Your task to perform on an android device: open app "LinkedIn" (install if not already installed) Image 0: 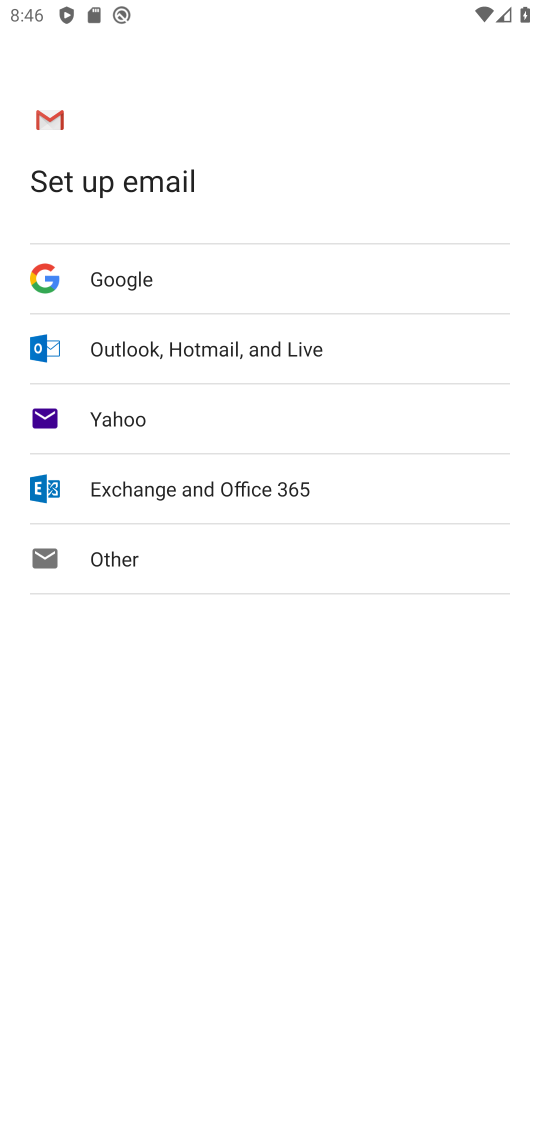
Step 0: press home button
Your task to perform on an android device: open app "LinkedIn" (install if not already installed) Image 1: 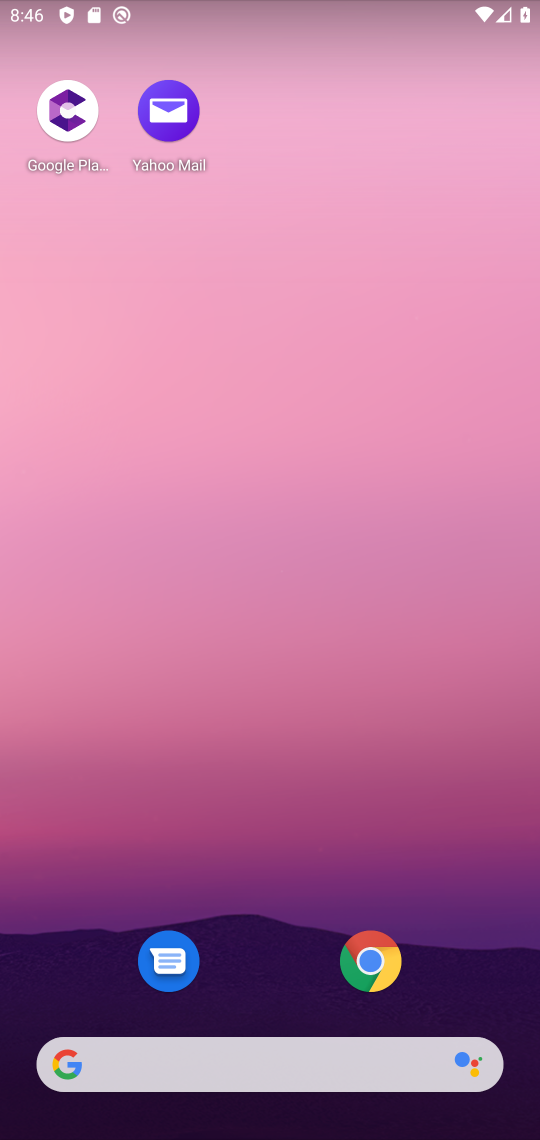
Step 1: drag from (329, 466) to (538, 160)
Your task to perform on an android device: open app "LinkedIn" (install if not already installed) Image 2: 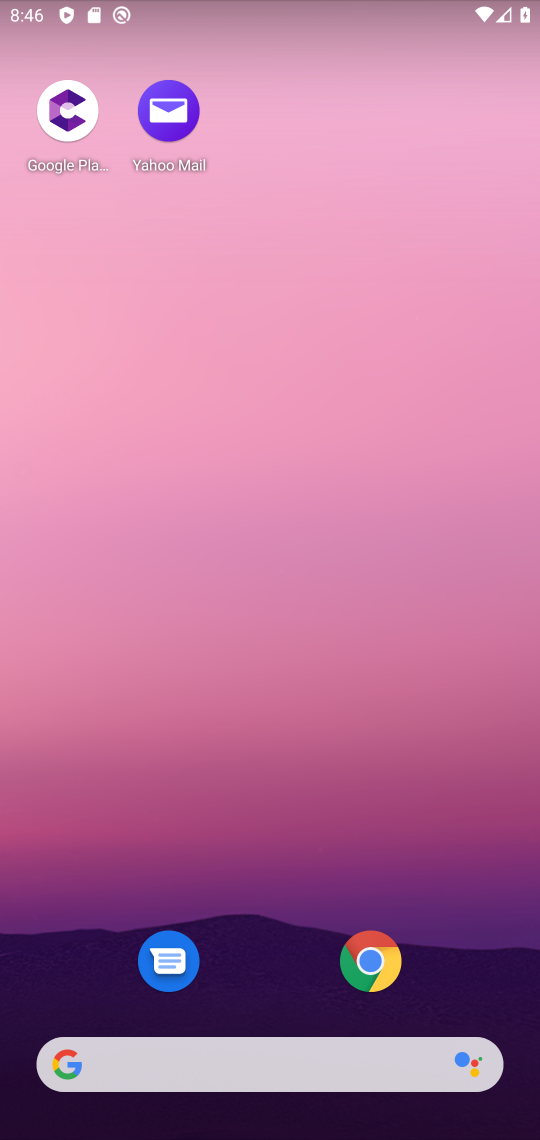
Step 2: drag from (294, 972) to (327, 0)
Your task to perform on an android device: open app "LinkedIn" (install if not already installed) Image 3: 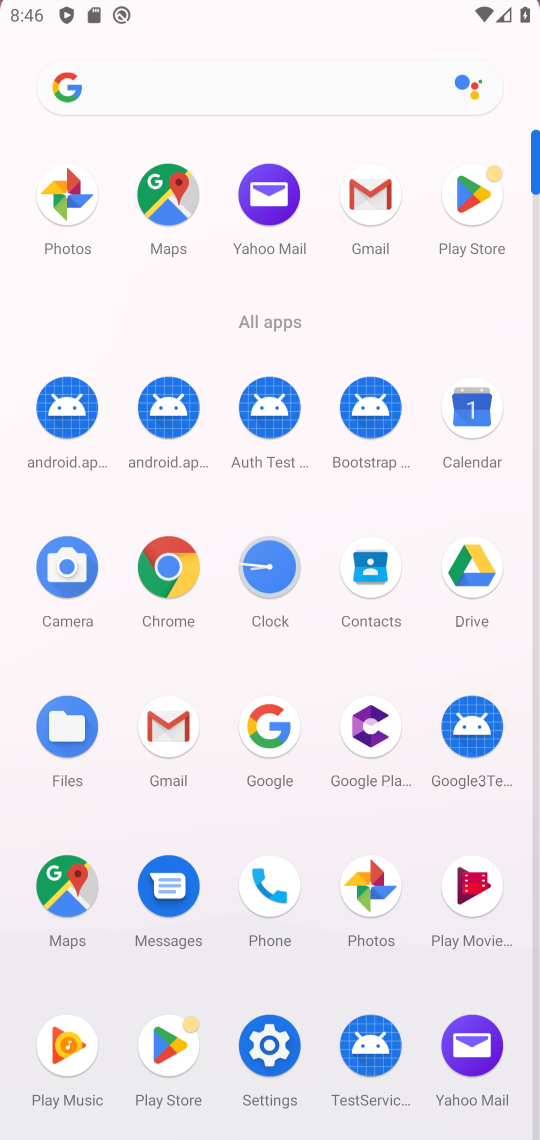
Step 3: click (485, 236)
Your task to perform on an android device: open app "LinkedIn" (install if not already installed) Image 4: 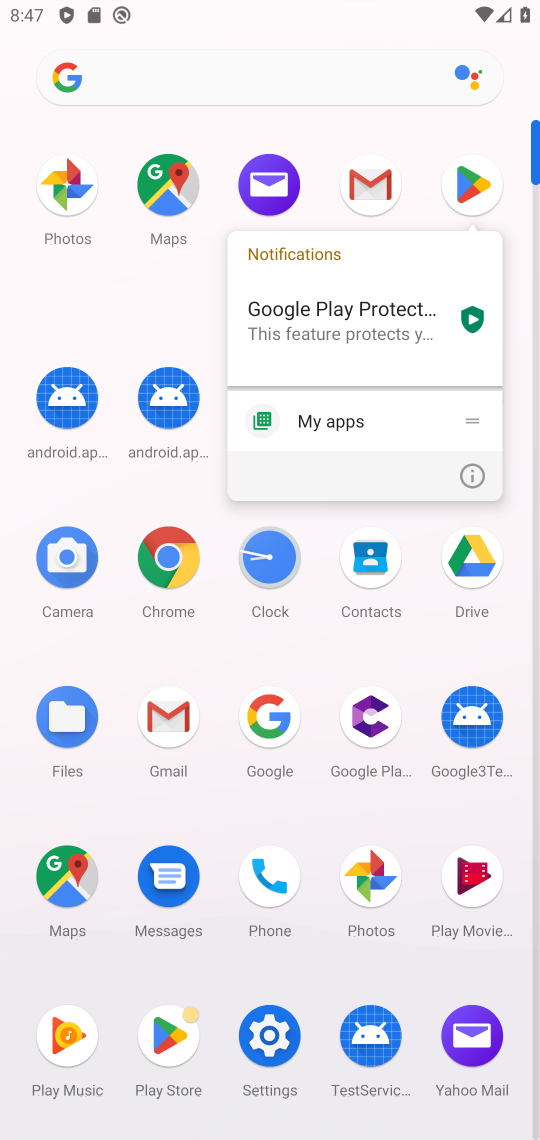
Step 4: click (481, 174)
Your task to perform on an android device: open app "LinkedIn" (install if not already installed) Image 5: 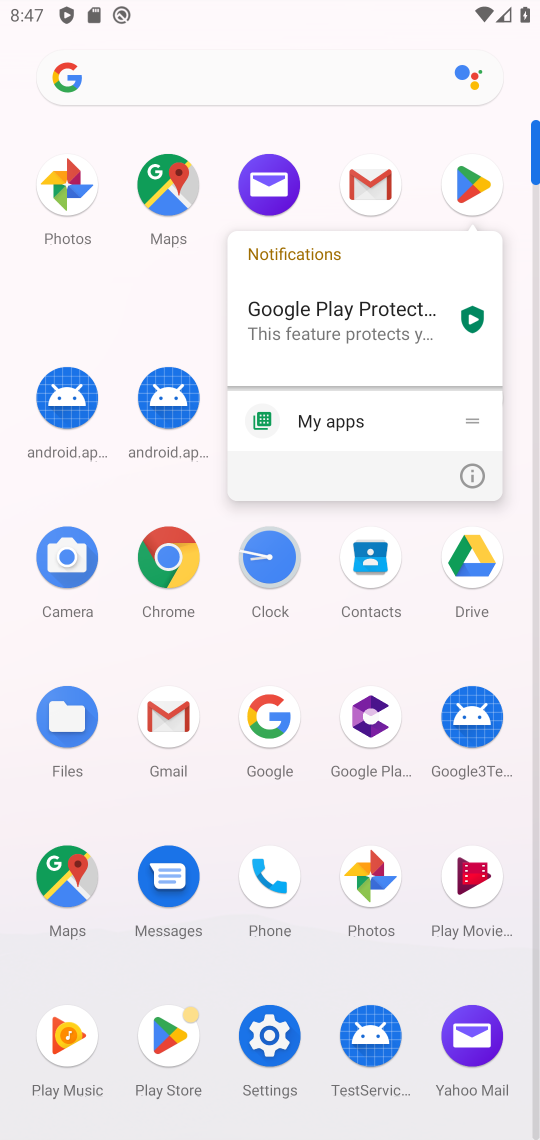
Step 5: click (477, 173)
Your task to perform on an android device: open app "LinkedIn" (install if not already installed) Image 6: 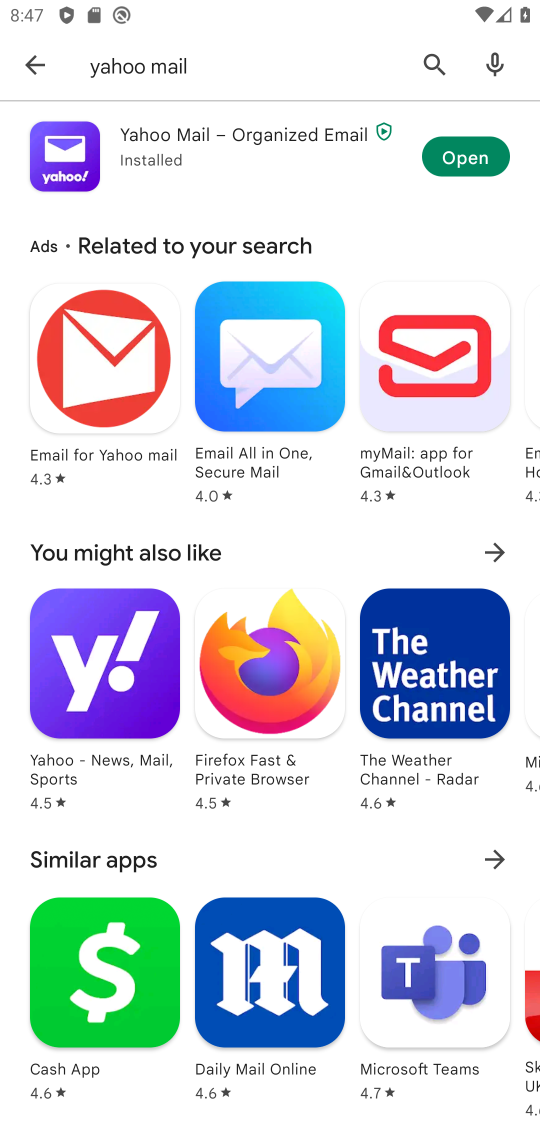
Step 6: click (5, 56)
Your task to perform on an android device: open app "LinkedIn" (install if not already installed) Image 7: 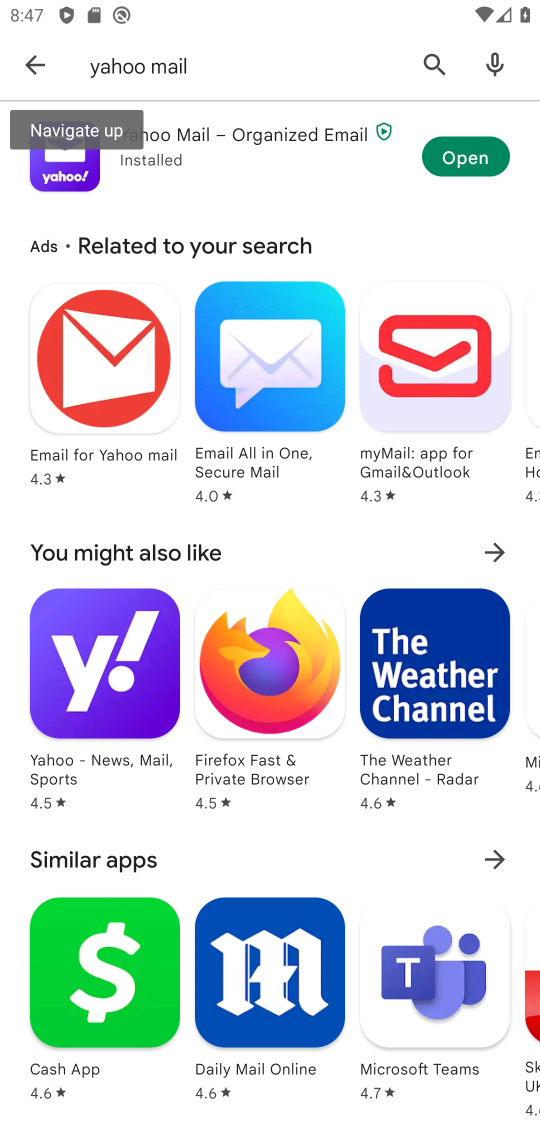
Step 7: click (32, 65)
Your task to perform on an android device: open app "LinkedIn" (install if not already installed) Image 8: 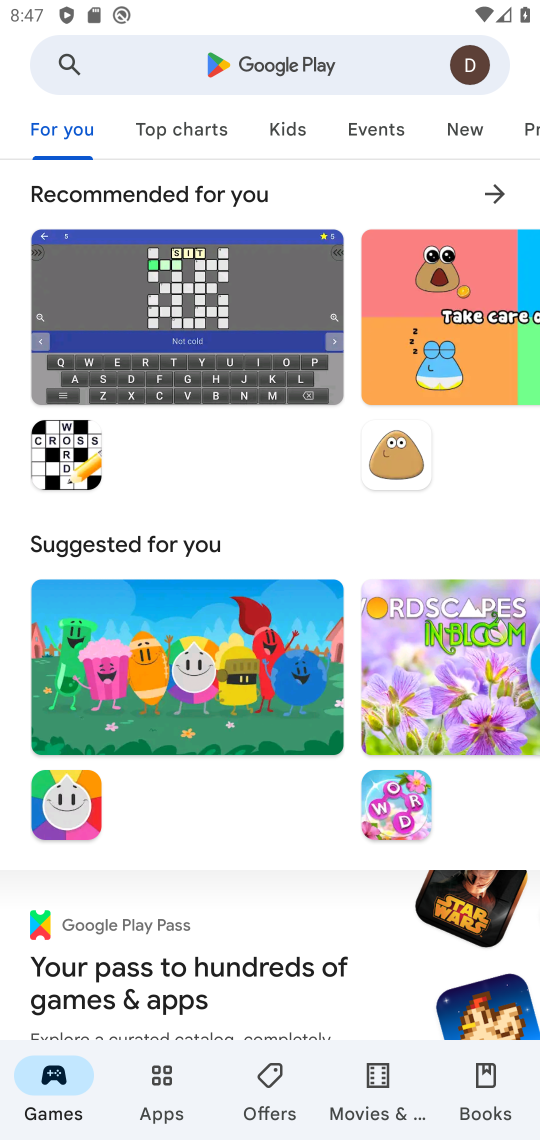
Step 8: click (186, 57)
Your task to perform on an android device: open app "LinkedIn" (install if not already installed) Image 9: 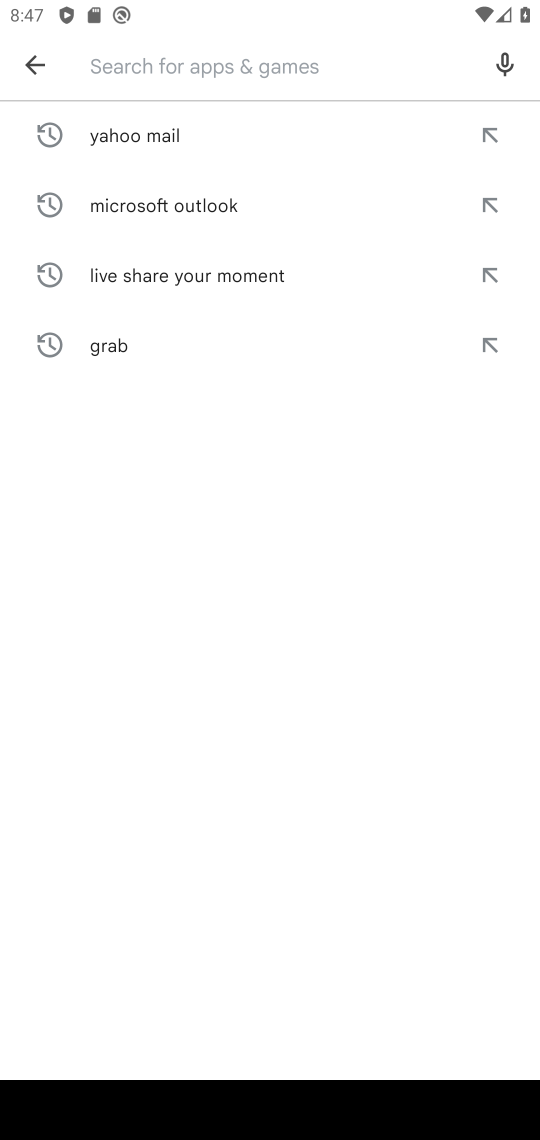
Step 9: type "LinkedIn"
Your task to perform on an android device: open app "LinkedIn" (install if not already installed) Image 10: 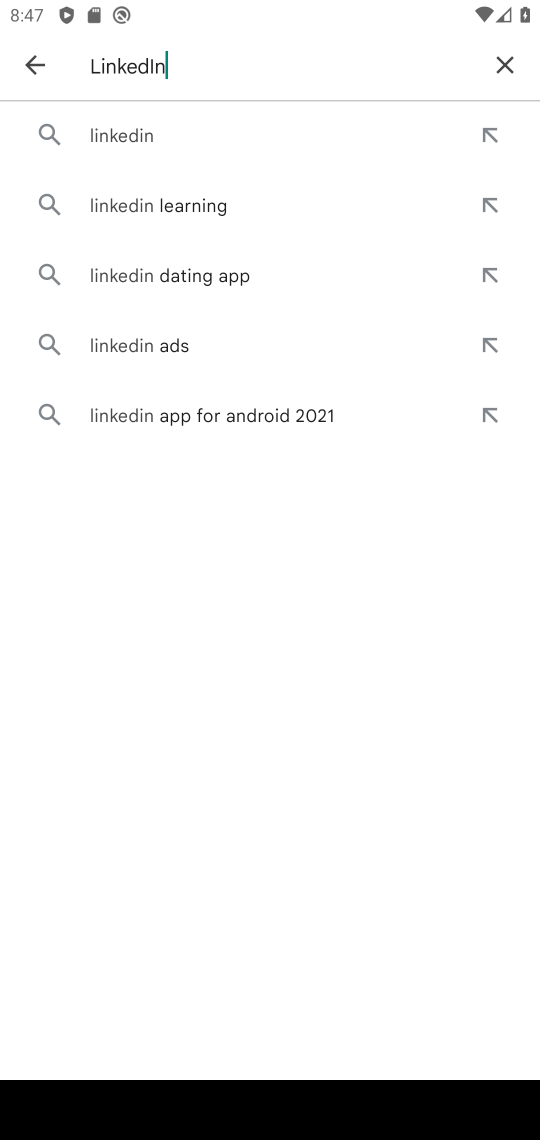
Step 10: click (119, 146)
Your task to perform on an android device: open app "LinkedIn" (install if not already installed) Image 11: 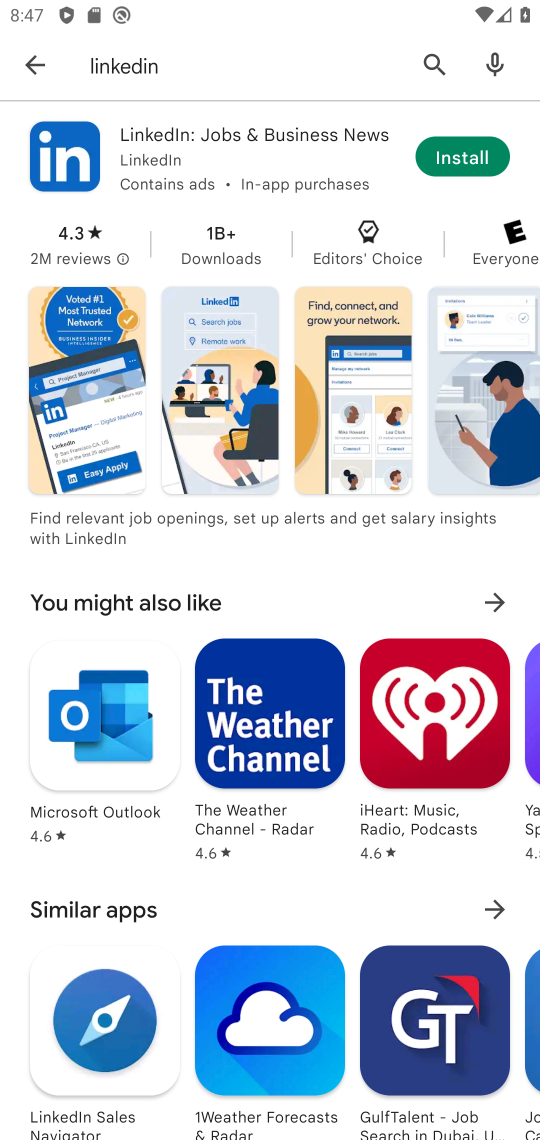
Step 11: click (449, 167)
Your task to perform on an android device: open app "LinkedIn" (install if not already installed) Image 12: 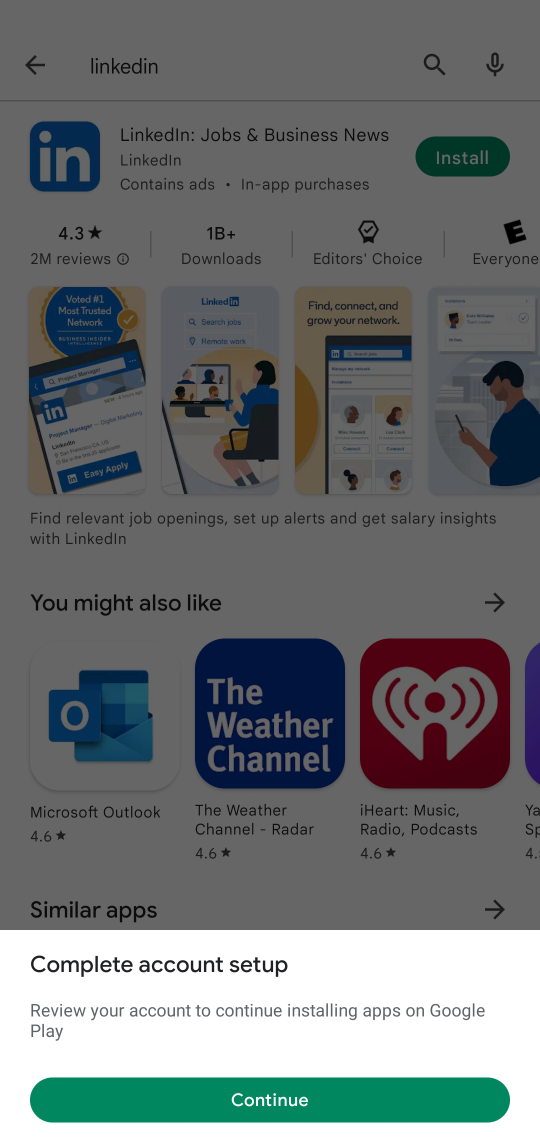
Step 12: click (307, 1098)
Your task to perform on an android device: open app "LinkedIn" (install if not already installed) Image 13: 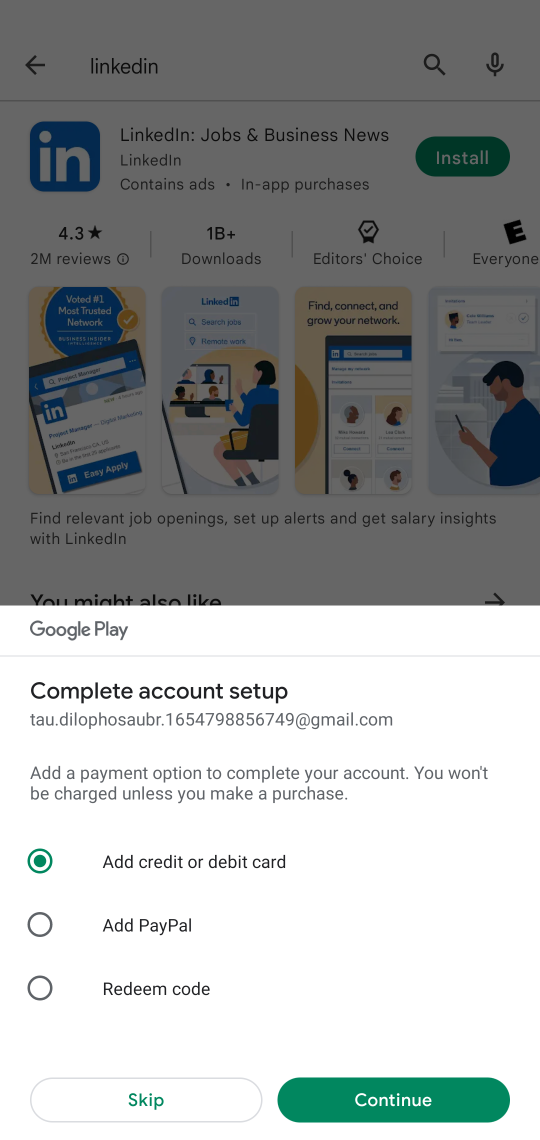
Step 13: click (142, 1111)
Your task to perform on an android device: open app "LinkedIn" (install if not already installed) Image 14: 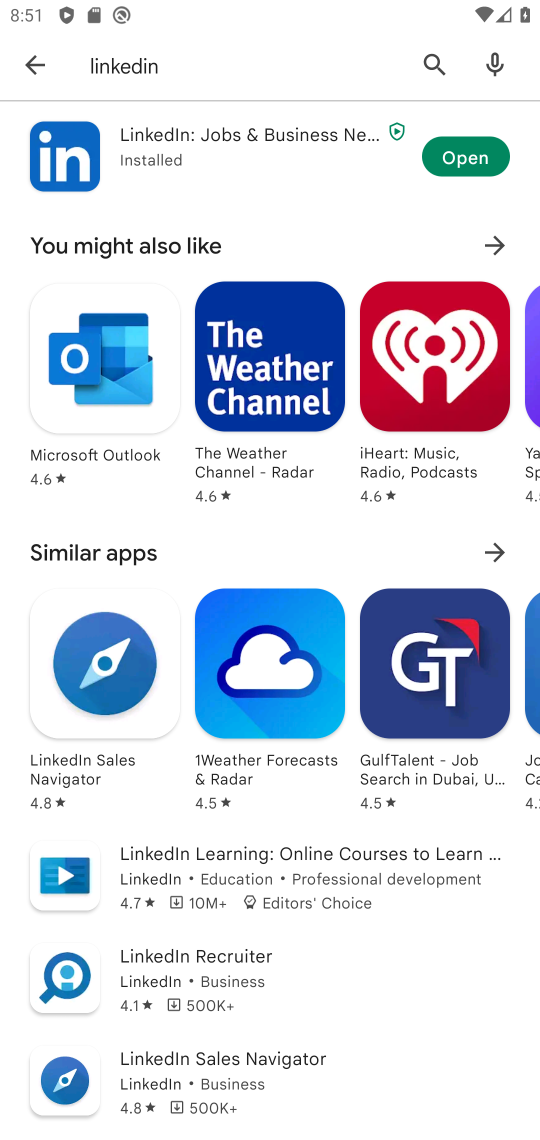
Step 14: click (476, 142)
Your task to perform on an android device: open app "LinkedIn" (install if not already installed) Image 15: 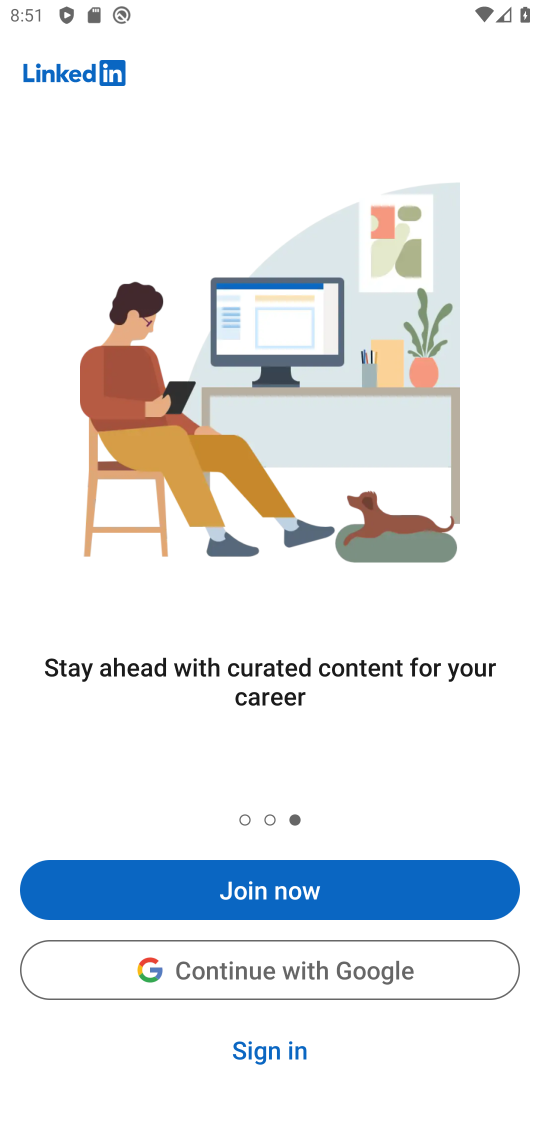
Step 15: task complete